Your task to perform on an android device: turn on location history Image 0: 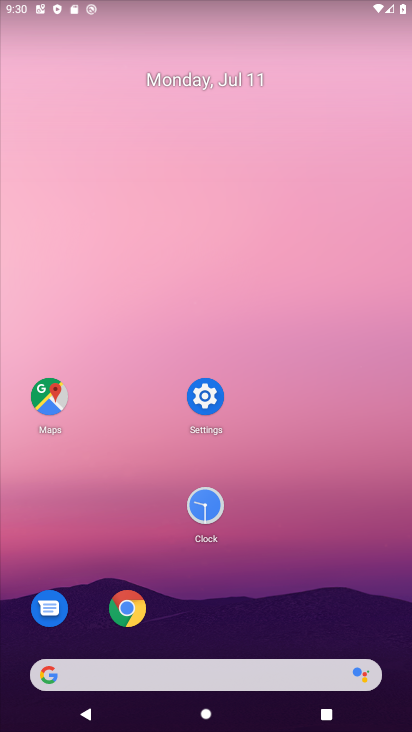
Step 0: click (212, 388)
Your task to perform on an android device: turn on location history Image 1: 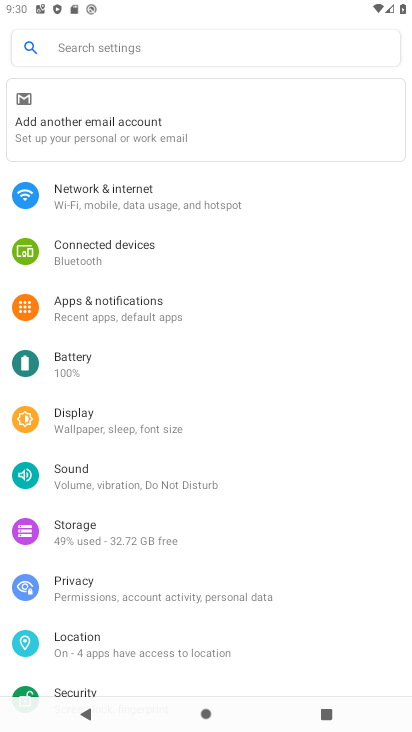
Step 1: click (77, 637)
Your task to perform on an android device: turn on location history Image 2: 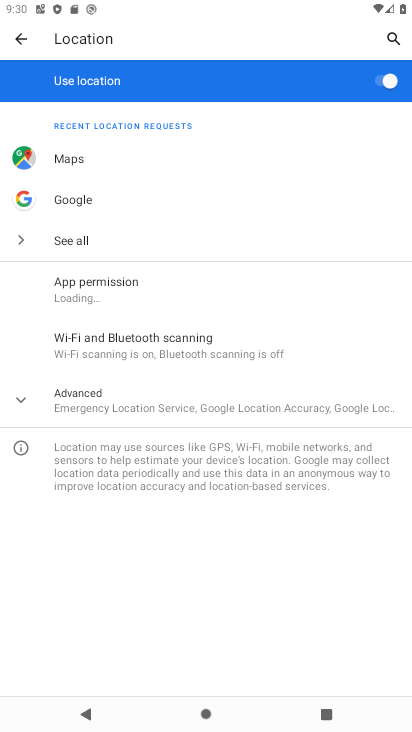
Step 2: click (29, 398)
Your task to perform on an android device: turn on location history Image 3: 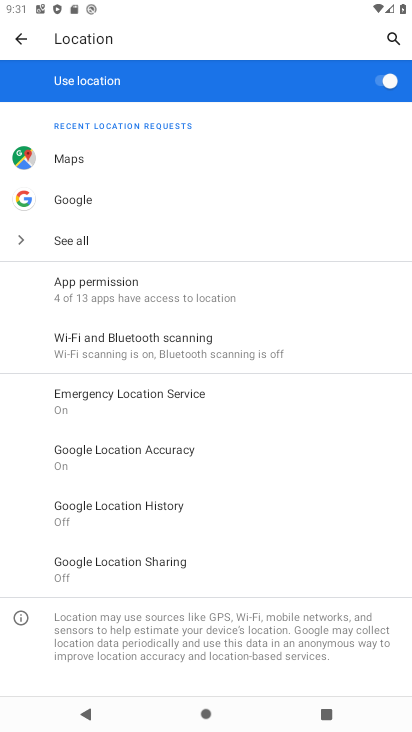
Step 3: click (130, 452)
Your task to perform on an android device: turn on location history Image 4: 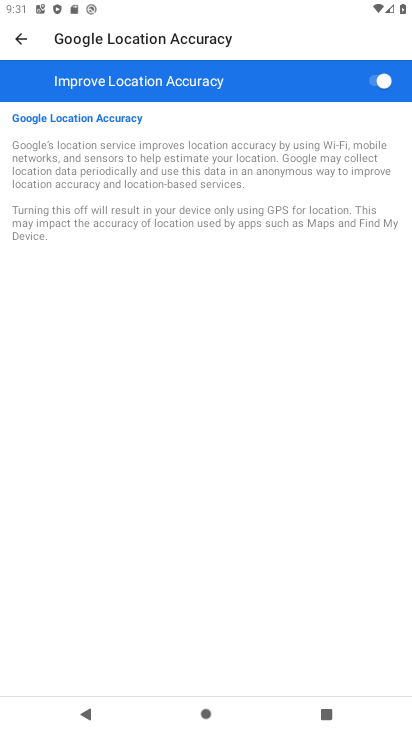
Step 4: task complete